Your task to perform on an android device: check google app version Image 0: 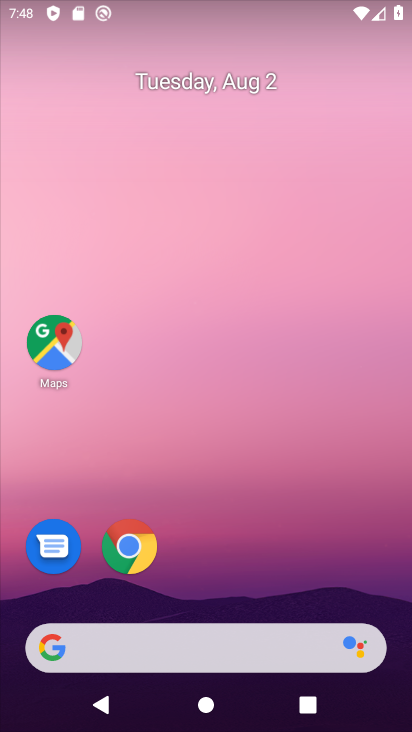
Step 0: click (40, 654)
Your task to perform on an android device: check google app version Image 1: 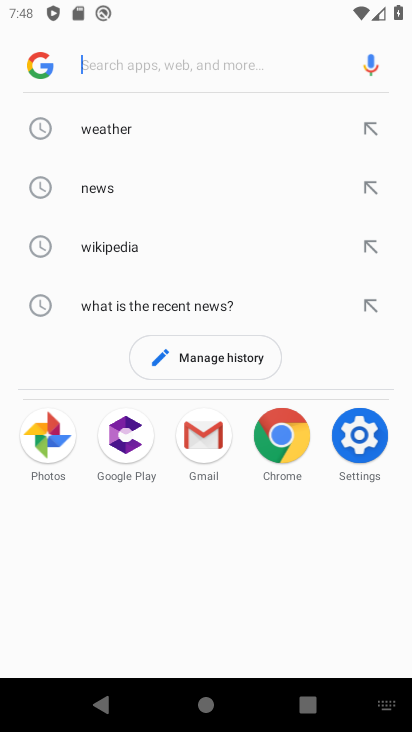
Step 1: click (43, 62)
Your task to perform on an android device: check google app version Image 2: 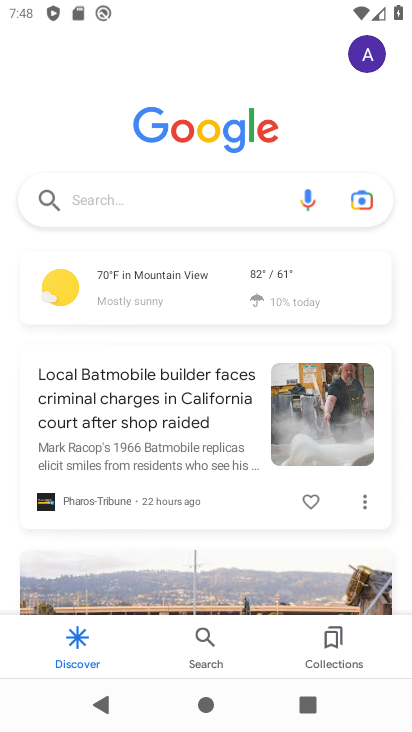
Step 2: click (367, 56)
Your task to perform on an android device: check google app version Image 3: 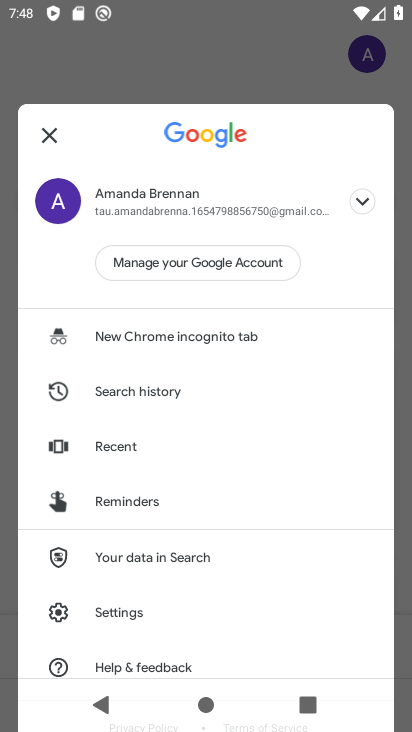
Step 3: click (128, 611)
Your task to perform on an android device: check google app version Image 4: 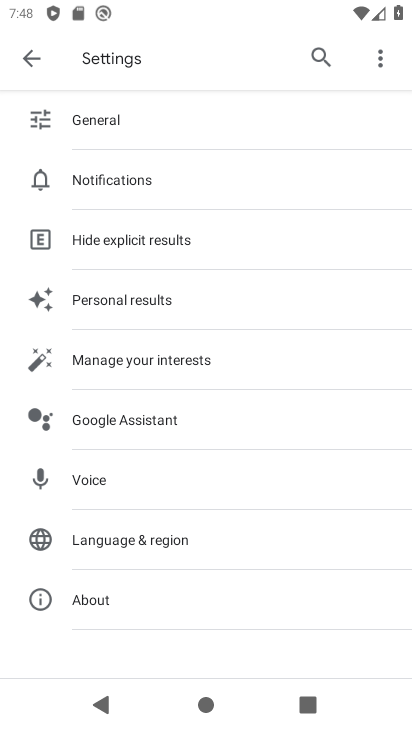
Step 4: click (94, 599)
Your task to perform on an android device: check google app version Image 5: 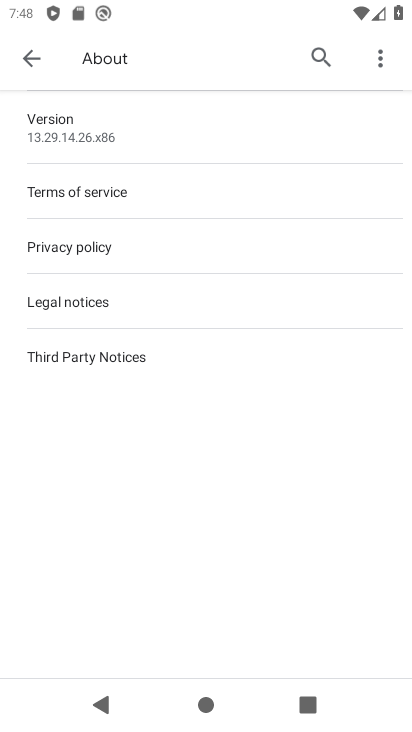
Step 5: task complete